Your task to perform on an android device: check data usage Image 0: 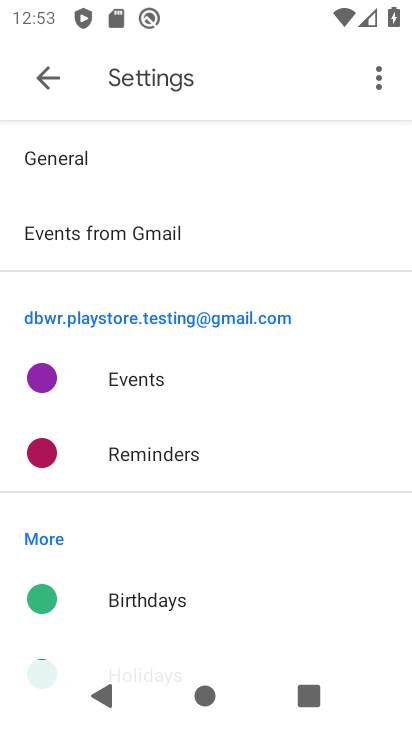
Step 0: press home button
Your task to perform on an android device: check data usage Image 1: 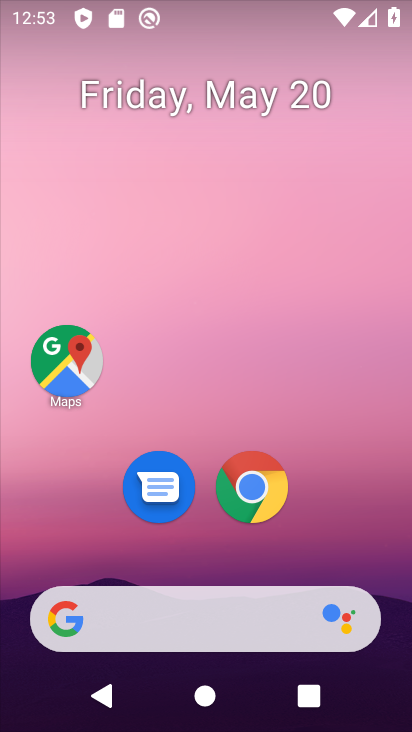
Step 1: drag from (311, 547) to (343, 153)
Your task to perform on an android device: check data usage Image 2: 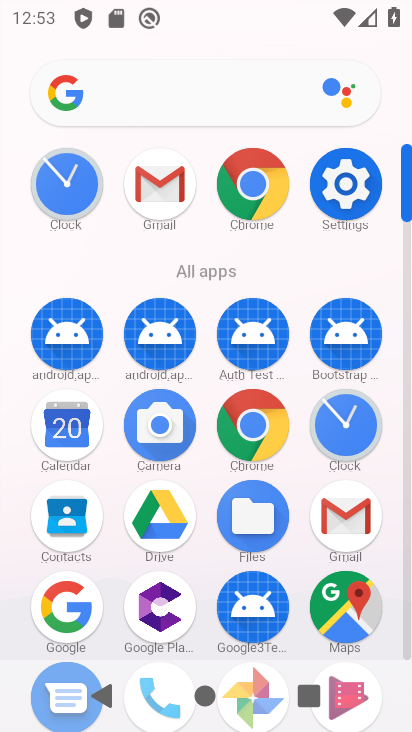
Step 2: click (352, 189)
Your task to perform on an android device: check data usage Image 3: 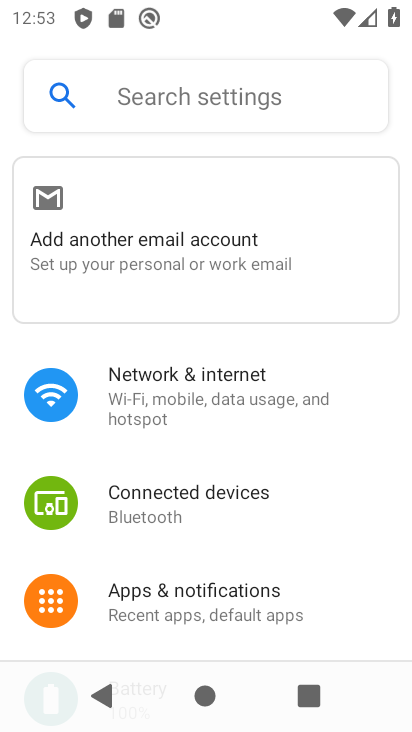
Step 3: click (154, 404)
Your task to perform on an android device: check data usage Image 4: 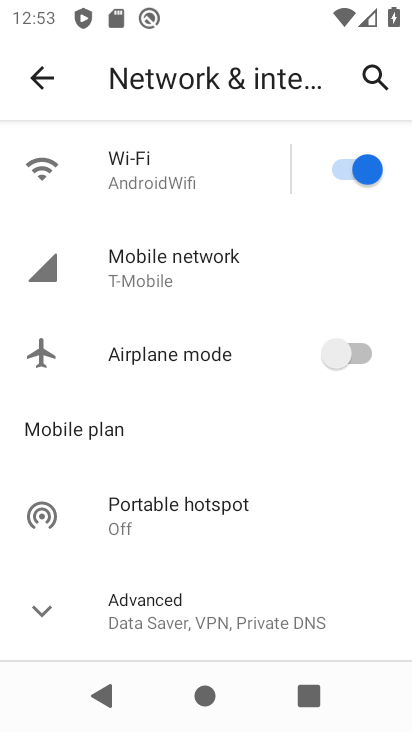
Step 4: click (154, 279)
Your task to perform on an android device: check data usage Image 5: 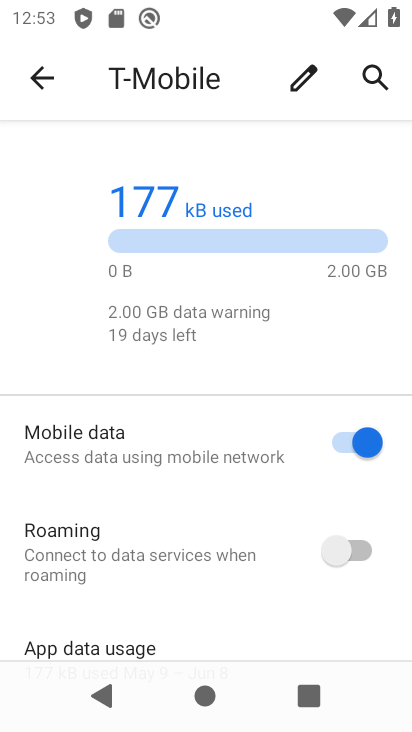
Step 5: task complete